Your task to perform on an android device: Open Google Maps Image 0: 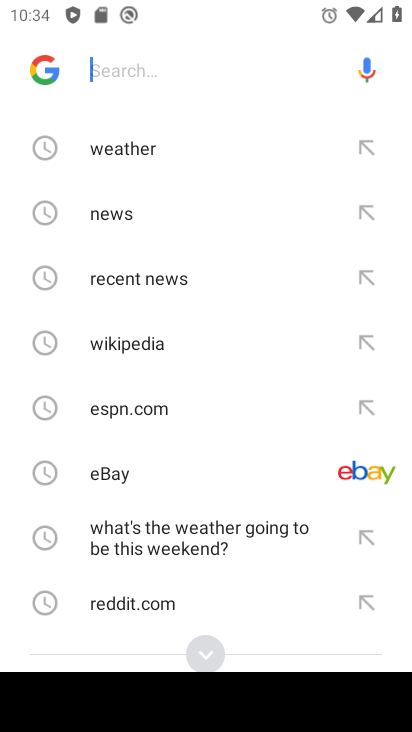
Step 0: press home button
Your task to perform on an android device: Open Google Maps Image 1: 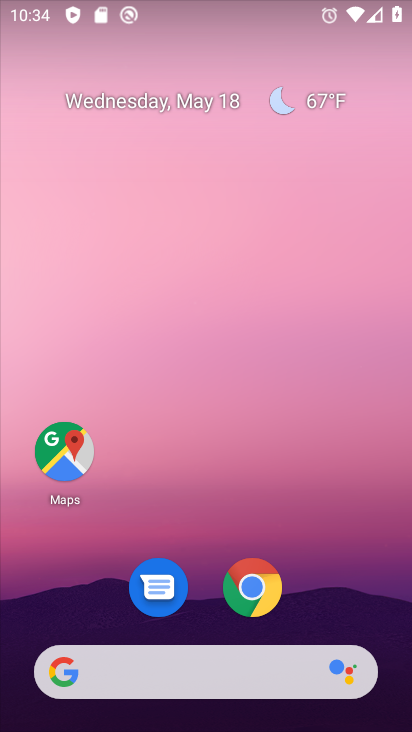
Step 1: click (42, 458)
Your task to perform on an android device: Open Google Maps Image 2: 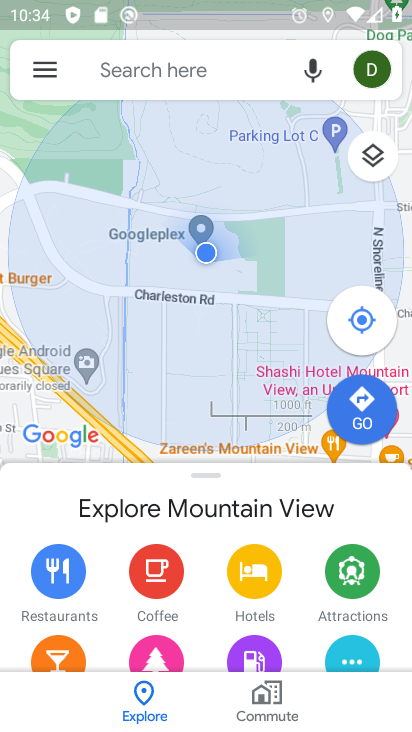
Step 2: task complete